Your task to perform on an android device: Open wifi settings Image 0: 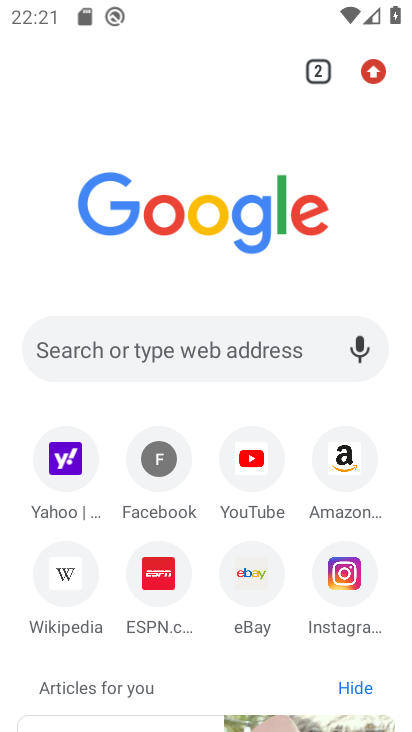
Step 0: press home button
Your task to perform on an android device: Open wifi settings Image 1: 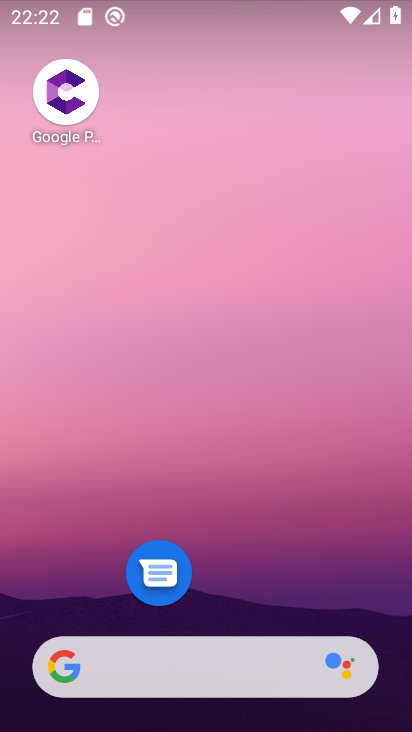
Step 1: drag from (279, 381) to (326, 24)
Your task to perform on an android device: Open wifi settings Image 2: 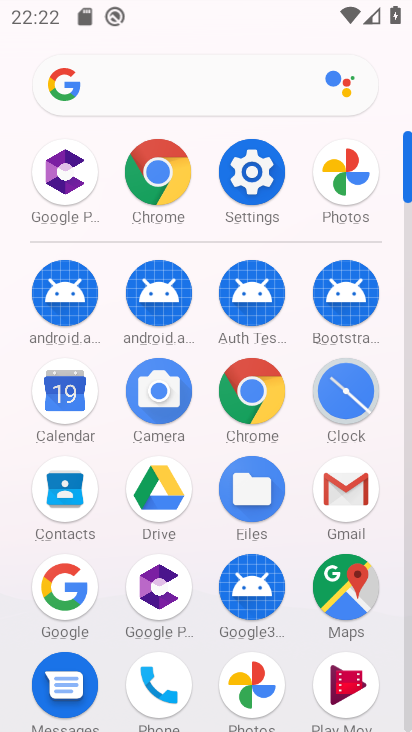
Step 2: click (249, 165)
Your task to perform on an android device: Open wifi settings Image 3: 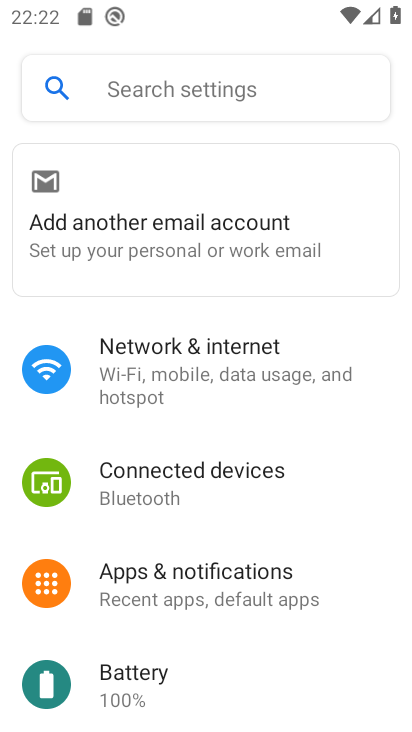
Step 3: click (192, 369)
Your task to perform on an android device: Open wifi settings Image 4: 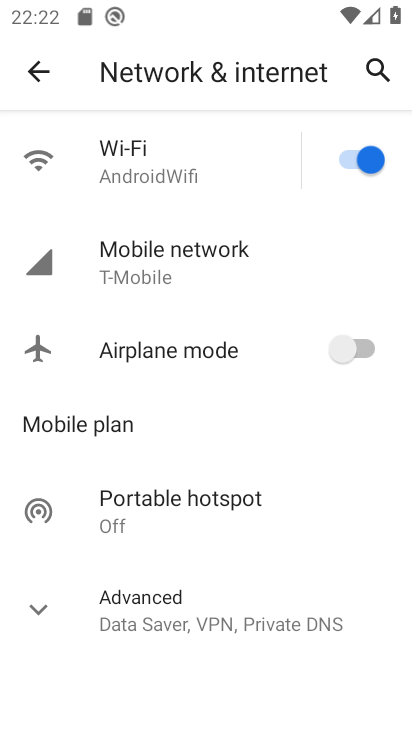
Step 4: click (174, 152)
Your task to perform on an android device: Open wifi settings Image 5: 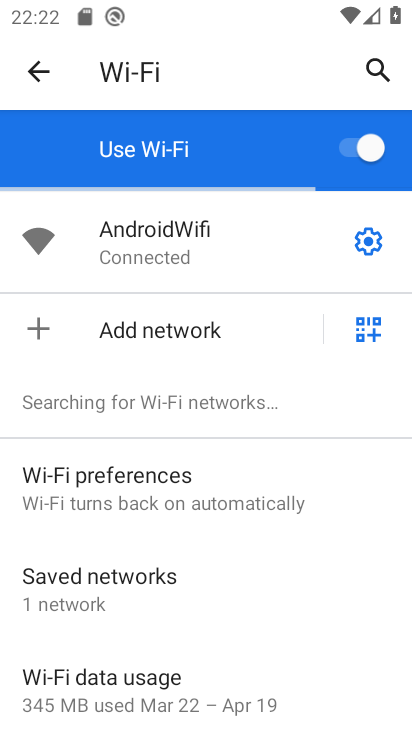
Step 5: task complete